Your task to perform on an android device: Clear all items from cart on ebay. Search for "usb-c to usb-b" on ebay, select the first entry, add it to the cart, then select checkout. Image 0: 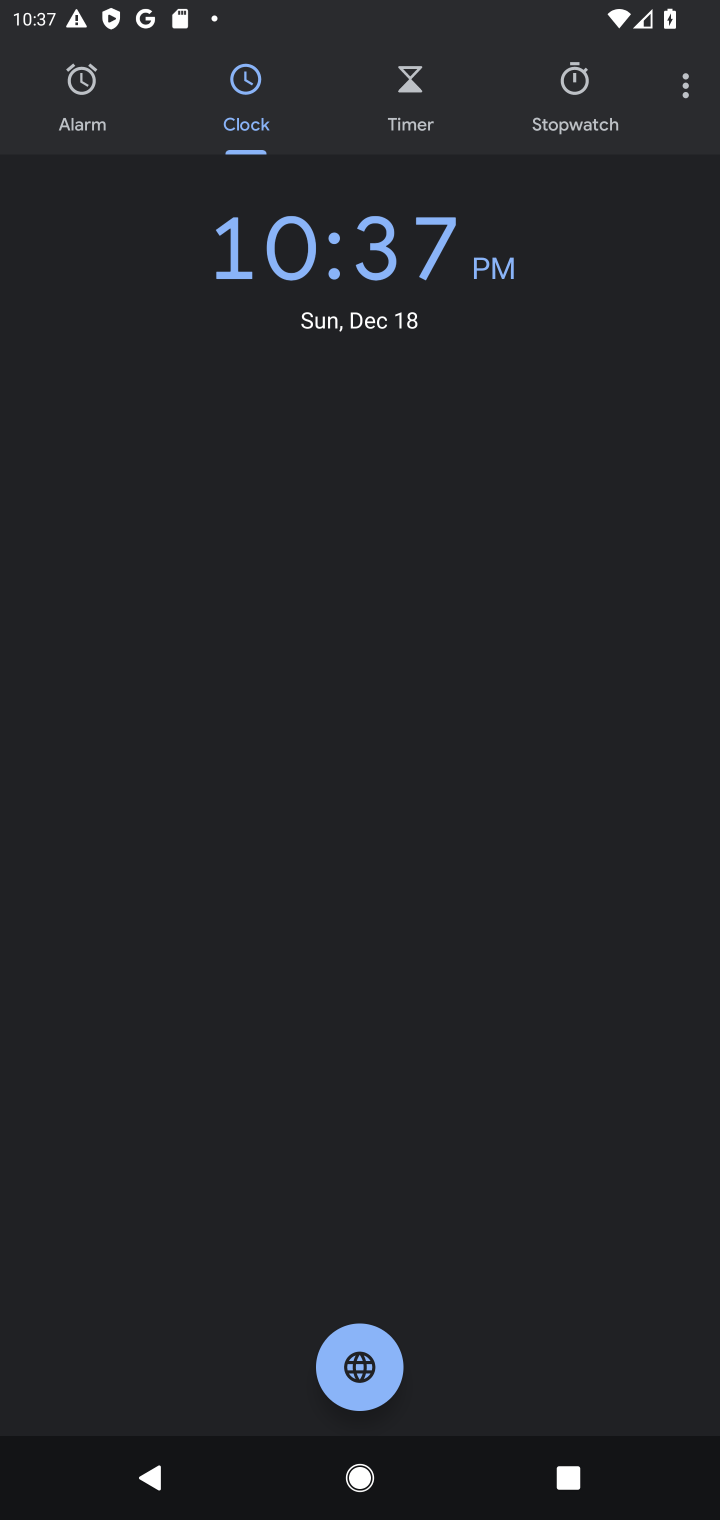
Step 0: task complete